Your task to perform on an android device: move an email to a new category in the gmail app Image 0: 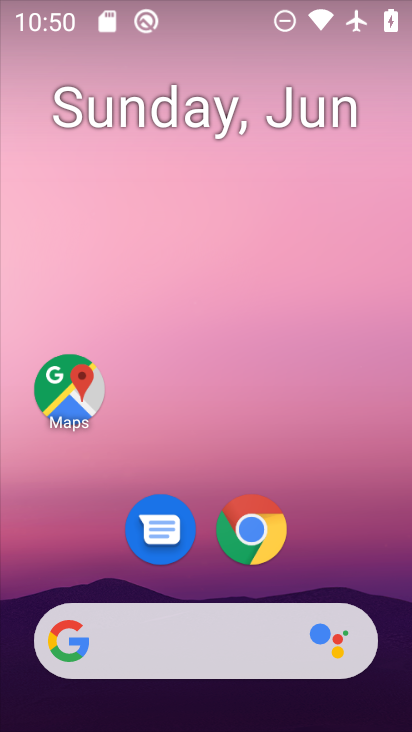
Step 0: drag from (393, 633) to (319, 13)
Your task to perform on an android device: move an email to a new category in the gmail app Image 1: 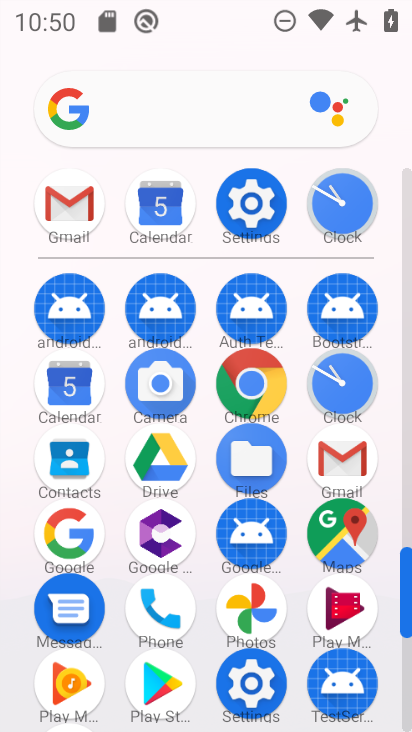
Step 1: click (408, 691)
Your task to perform on an android device: move an email to a new category in the gmail app Image 2: 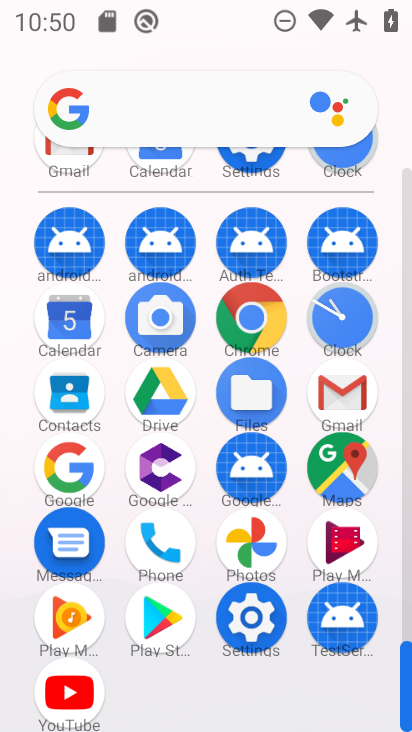
Step 2: click (338, 386)
Your task to perform on an android device: move an email to a new category in the gmail app Image 3: 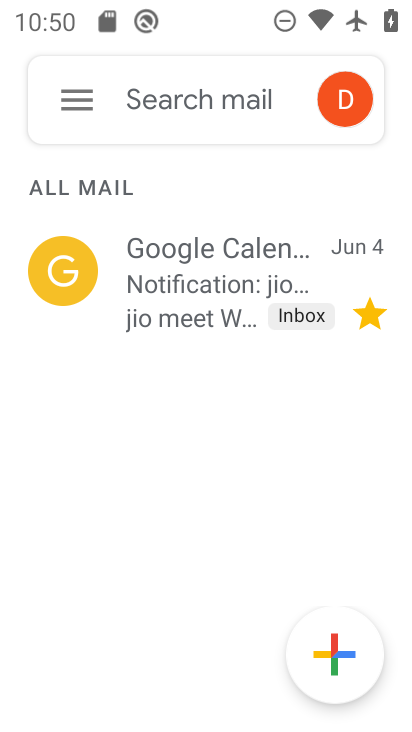
Step 3: click (211, 269)
Your task to perform on an android device: move an email to a new category in the gmail app Image 4: 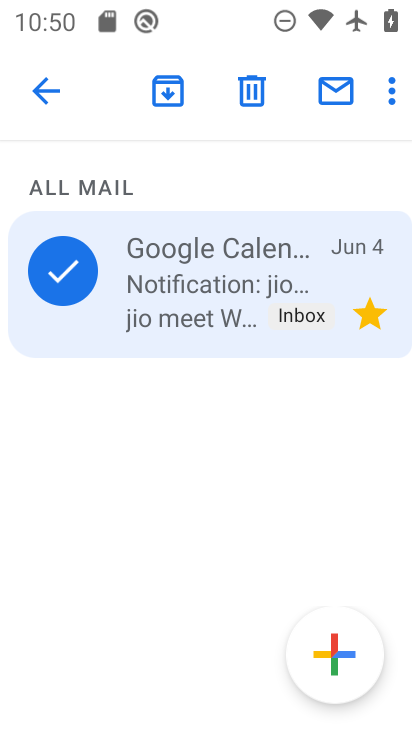
Step 4: click (389, 86)
Your task to perform on an android device: move an email to a new category in the gmail app Image 5: 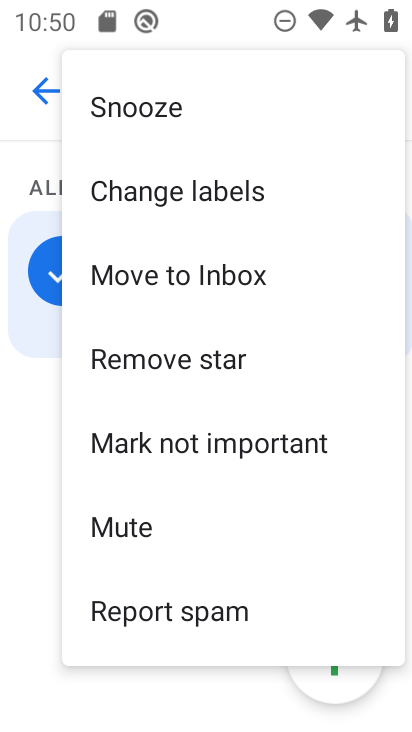
Step 5: click (144, 287)
Your task to perform on an android device: move an email to a new category in the gmail app Image 6: 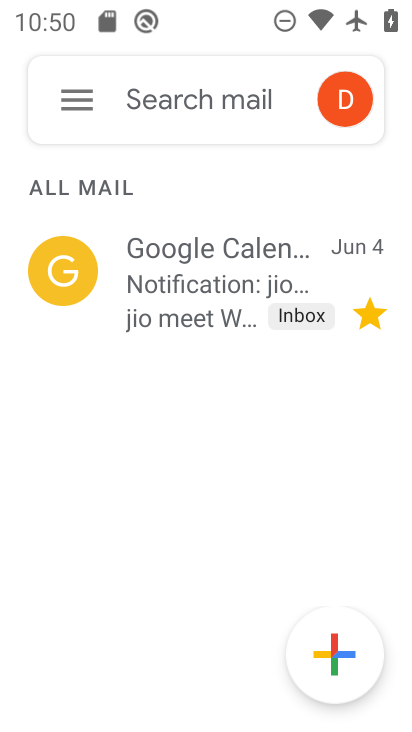
Step 6: task complete